Your task to perform on an android device: Open the phone app and click the voicemail tab. Image 0: 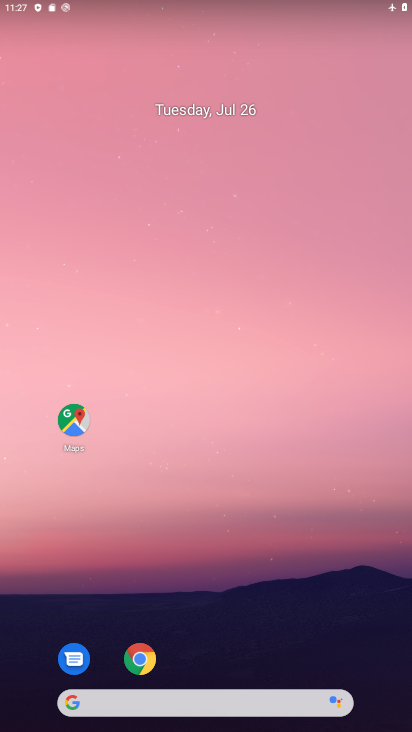
Step 0: drag from (52, 553) to (294, 132)
Your task to perform on an android device: Open the phone app and click the voicemail tab. Image 1: 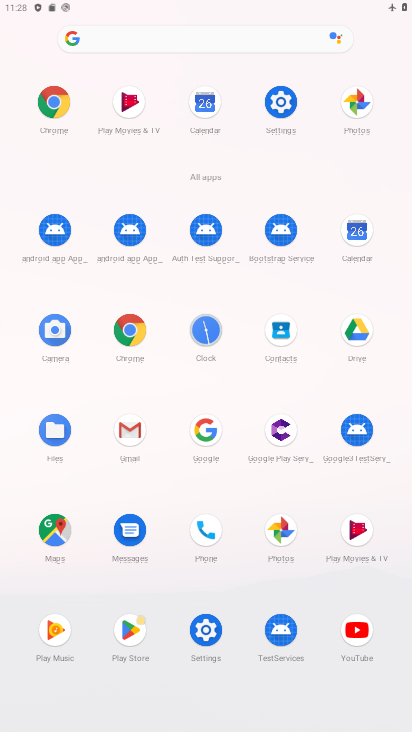
Step 1: click (356, 534)
Your task to perform on an android device: Open the phone app and click the voicemail tab. Image 2: 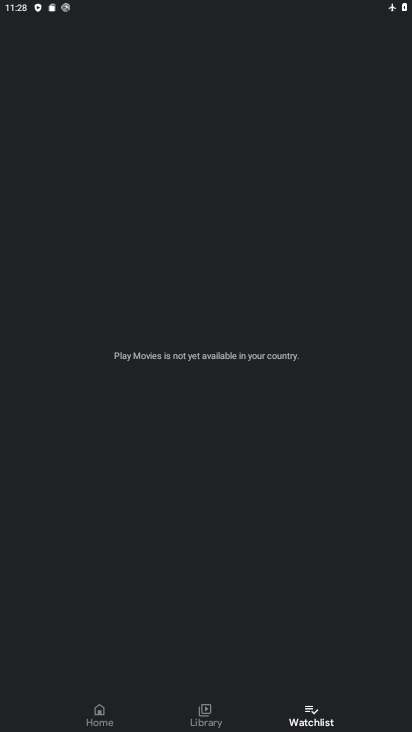
Step 2: press home button
Your task to perform on an android device: Open the phone app and click the voicemail tab. Image 3: 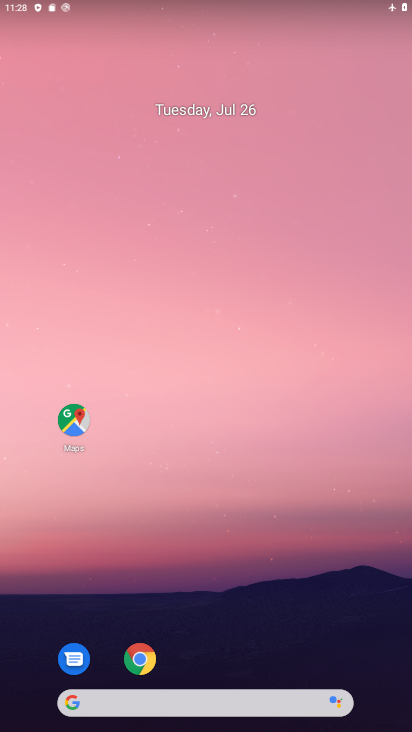
Step 3: drag from (48, 584) to (309, 174)
Your task to perform on an android device: Open the phone app and click the voicemail tab. Image 4: 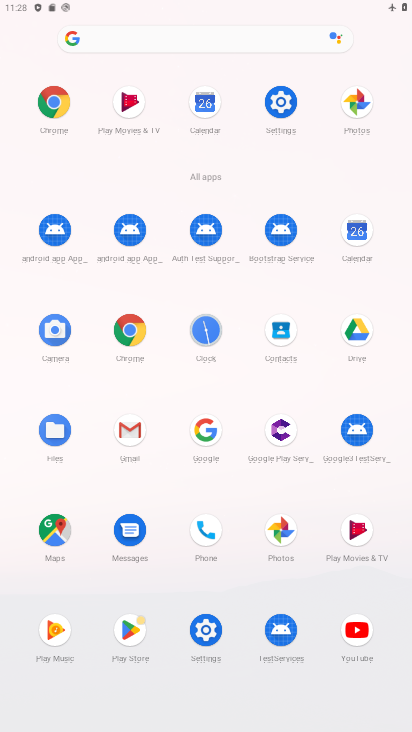
Step 4: click (213, 524)
Your task to perform on an android device: Open the phone app and click the voicemail tab. Image 5: 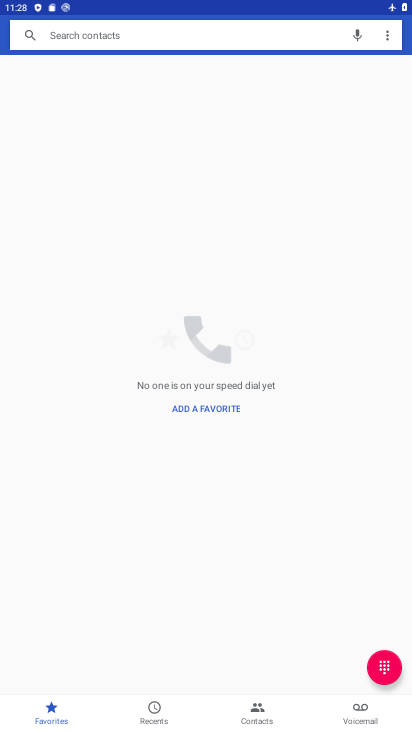
Step 5: click (367, 710)
Your task to perform on an android device: Open the phone app and click the voicemail tab. Image 6: 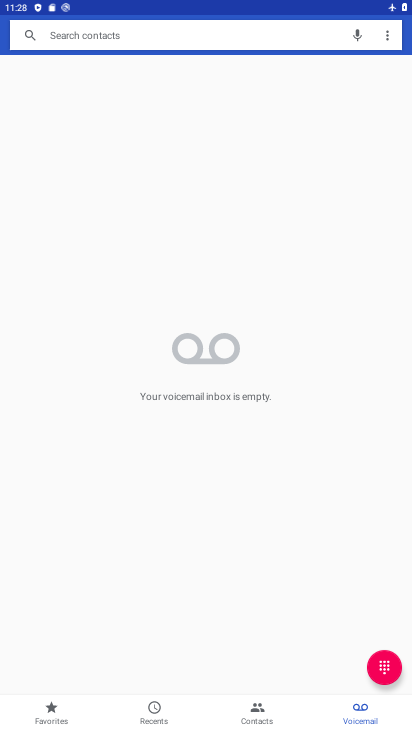
Step 6: task complete